Your task to perform on an android device: turn on priority inbox in the gmail app Image 0: 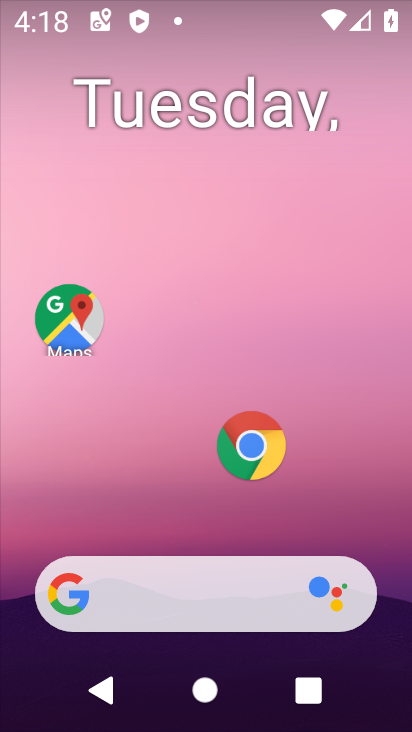
Step 0: drag from (181, 542) to (195, 2)
Your task to perform on an android device: turn on priority inbox in the gmail app Image 1: 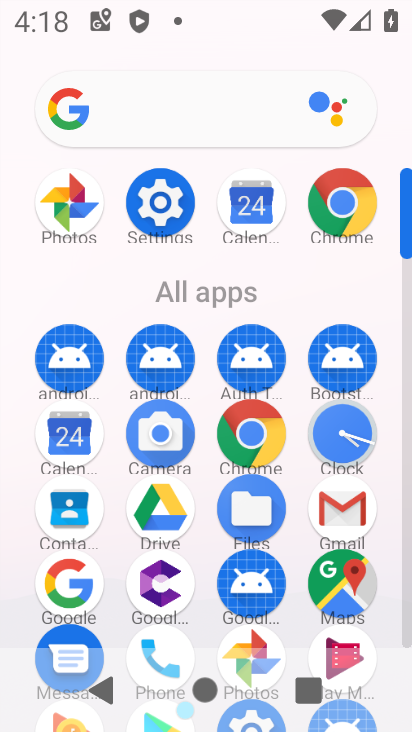
Step 1: click (337, 518)
Your task to perform on an android device: turn on priority inbox in the gmail app Image 2: 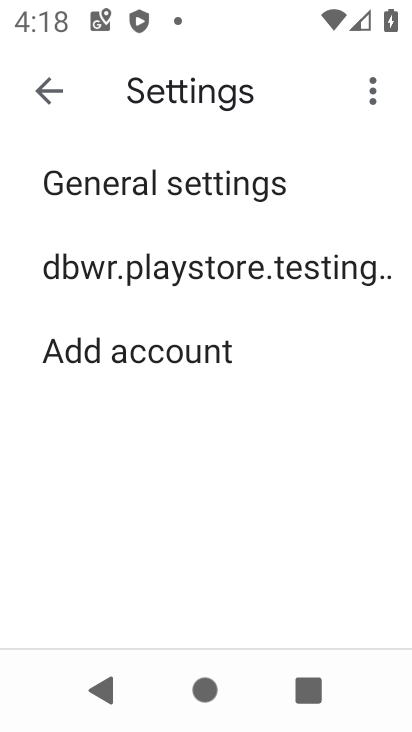
Step 2: click (166, 268)
Your task to perform on an android device: turn on priority inbox in the gmail app Image 3: 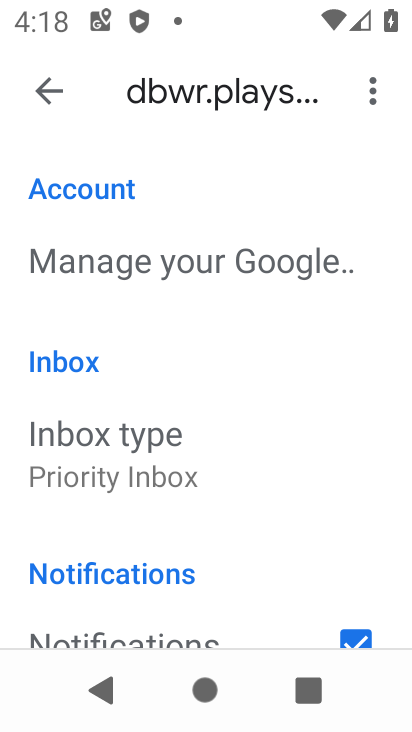
Step 3: click (136, 470)
Your task to perform on an android device: turn on priority inbox in the gmail app Image 4: 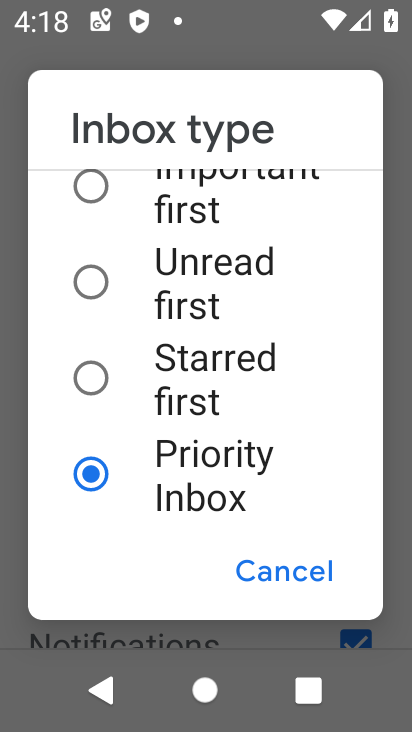
Step 4: task complete